Your task to perform on an android device: change the clock style Image 0: 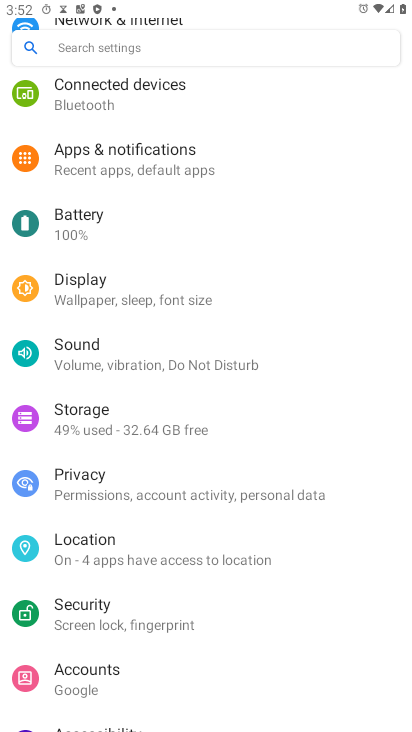
Step 0: press home button
Your task to perform on an android device: change the clock style Image 1: 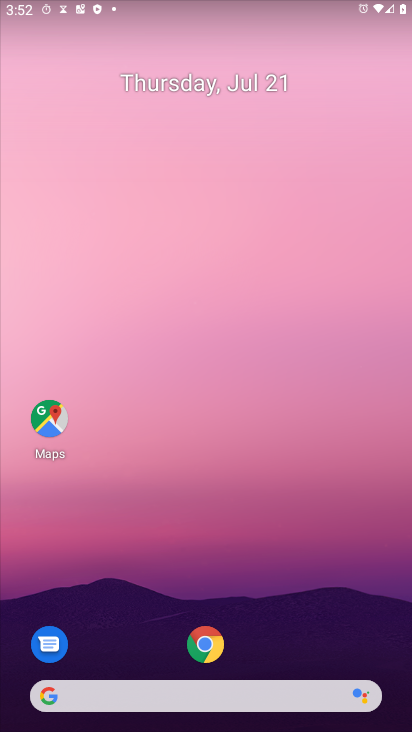
Step 1: drag from (294, 617) to (302, 126)
Your task to perform on an android device: change the clock style Image 2: 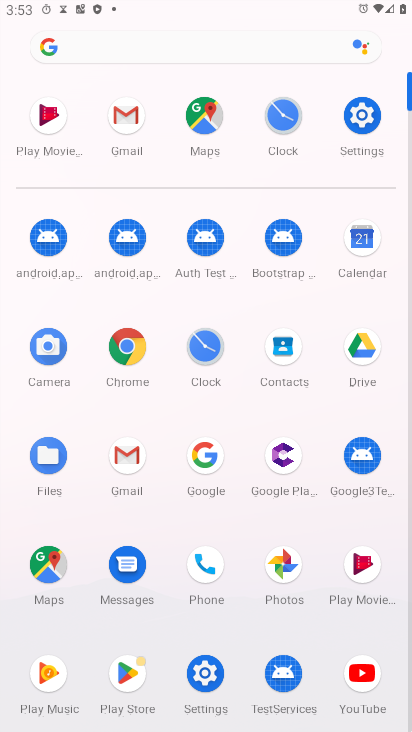
Step 2: click (280, 114)
Your task to perform on an android device: change the clock style Image 3: 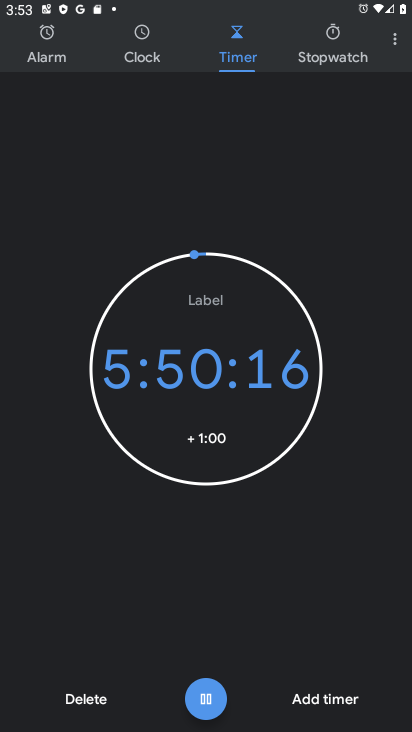
Step 3: click (388, 36)
Your task to perform on an android device: change the clock style Image 4: 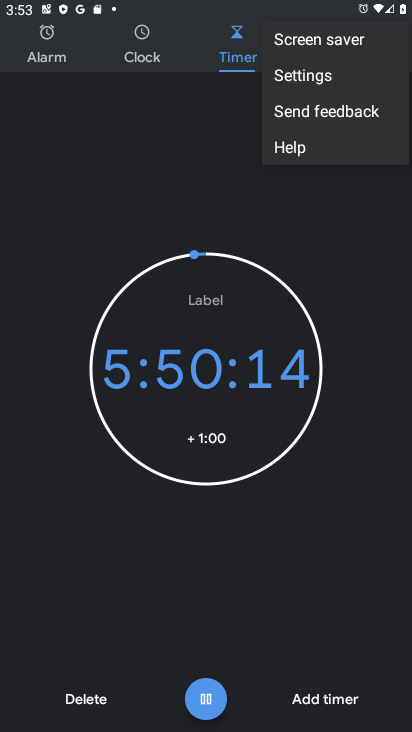
Step 4: click (313, 70)
Your task to perform on an android device: change the clock style Image 5: 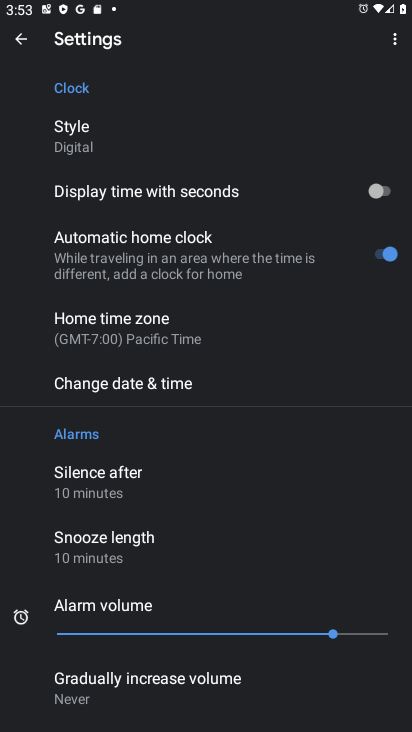
Step 5: click (80, 140)
Your task to perform on an android device: change the clock style Image 6: 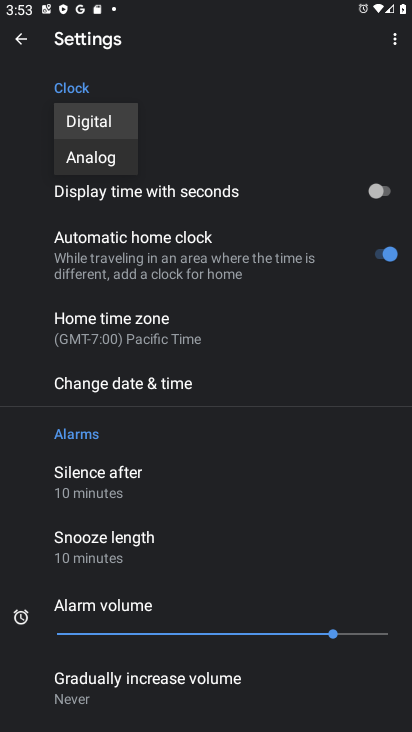
Step 6: click (103, 157)
Your task to perform on an android device: change the clock style Image 7: 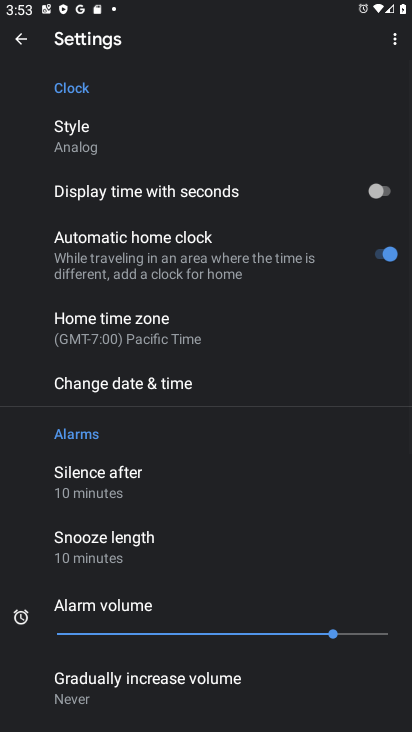
Step 7: task complete